Your task to perform on an android device: open the mobile data screen to see how much data has been used Image 0: 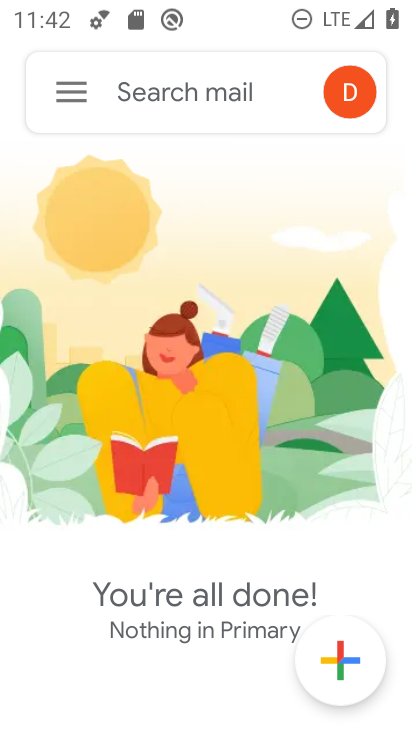
Step 0: press home button
Your task to perform on an android device: open the mobile data screen to see how much data has been used Image 1: 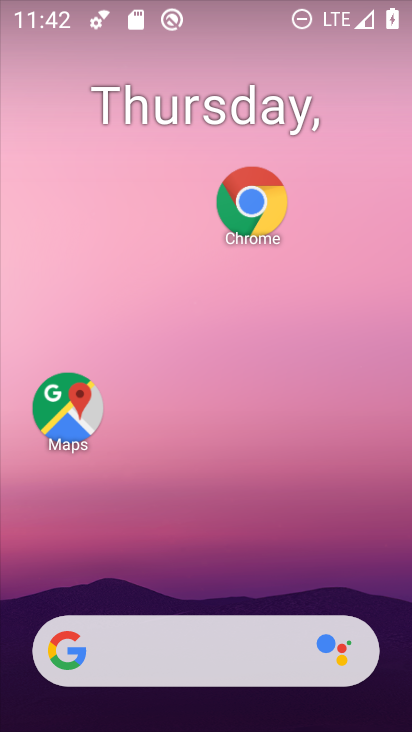
Step 1: drag from (219, 604) to (289, 60)
Your task to perform on an android device: open the mobile data screen to see how much data has been used Image 2: 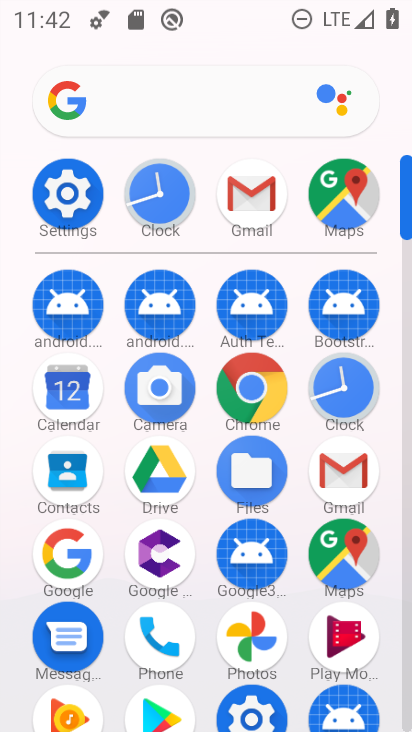
Step 2: click (92, 203)
Your task to perform on an android device: open the mobile data screen to see how much data has been used Image 3: 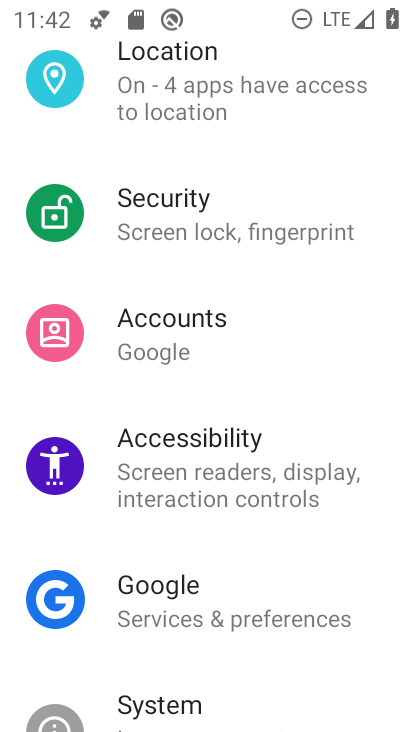
Step 3: drag from (145, 179) to (202, 707)
Your task to perform on an android device: open the mobile data screen to see how much data has been used Image 4: 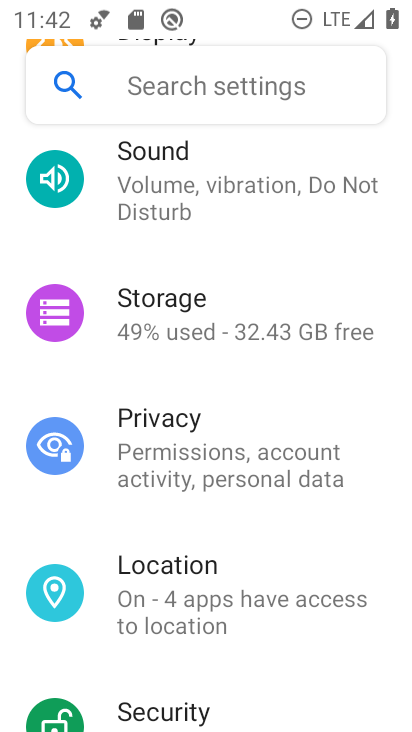
Step 4: drag from (188, 204) to (220, 715)
Your task to perform on an android device: open the mobile data screen to see how much data has been used Image 5: 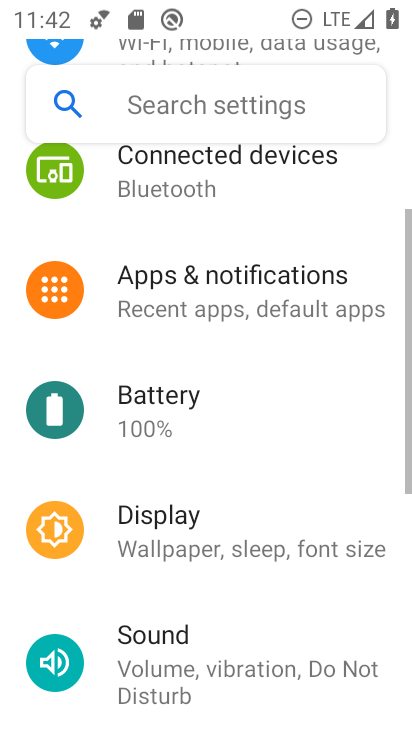
Step 5: drag from (192, 235) to (192, 731)
Your task to perform on an android device: open the mobile data screen to see how much data has been used Image 6: 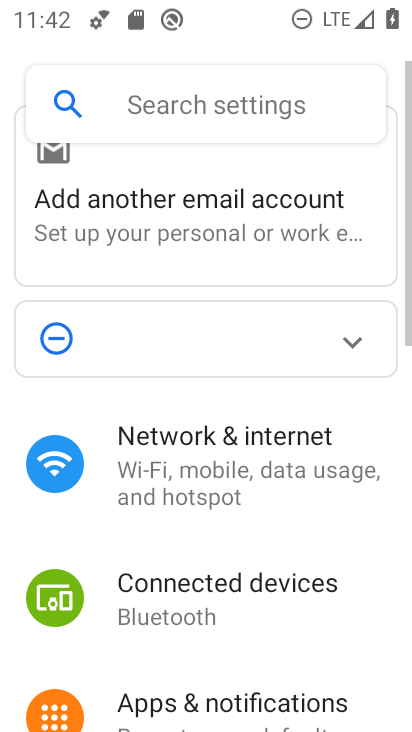
Step 6: click (206, 403)
Your task to perform on an android device: open the mobile data screen to see how much data has been used Image 7: 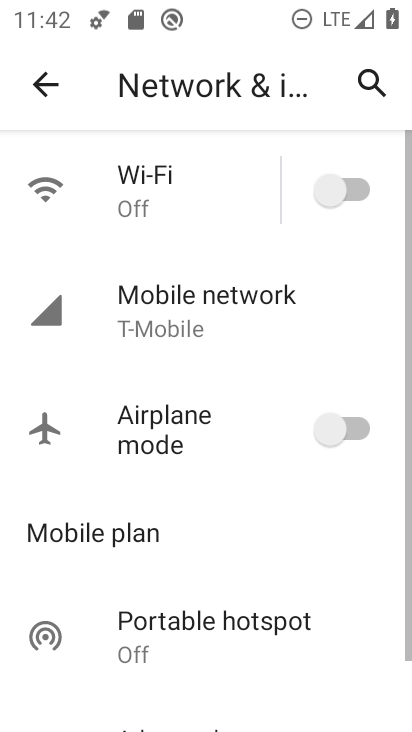
Step 7: click (193, 310)
Your task to perform on an android device: open the mobile data screen to see how much data has been used Image 8: 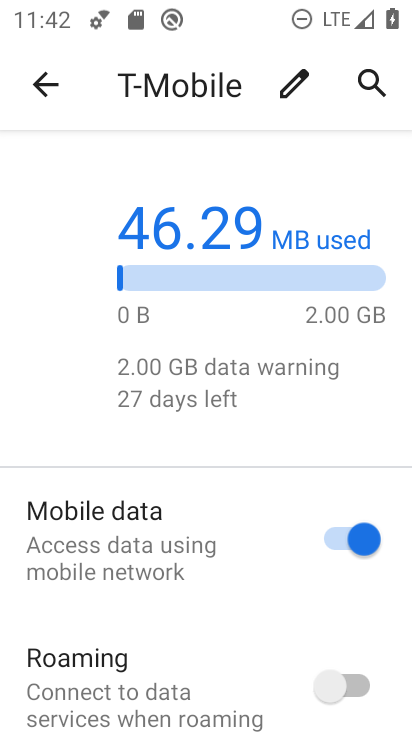
Step 8: task complete